Your task to perform on an android device: Open Reddit.com Image 0: 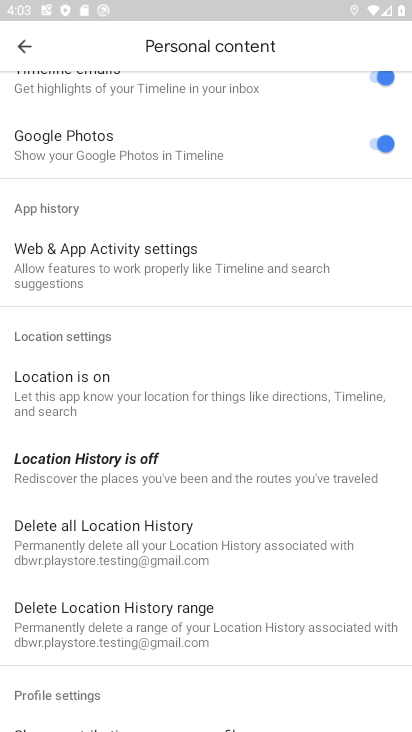
Step 0: press home button
Your task to perform on an android device: Open Reddit.com Image 1: 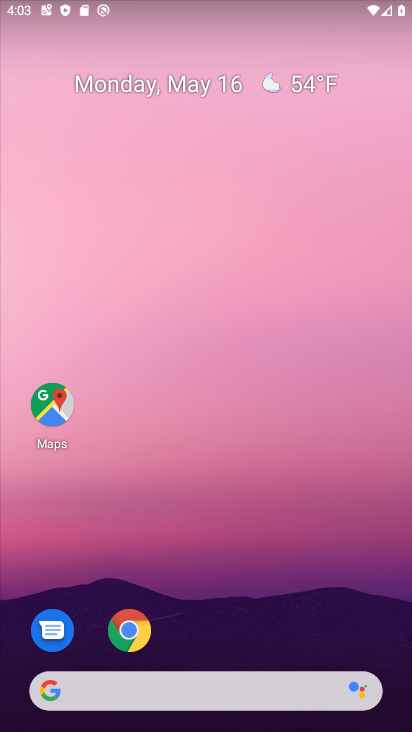
Step 1: click (127, 629)
Your task to perform on an android device: Open Reddit.com Image 2: 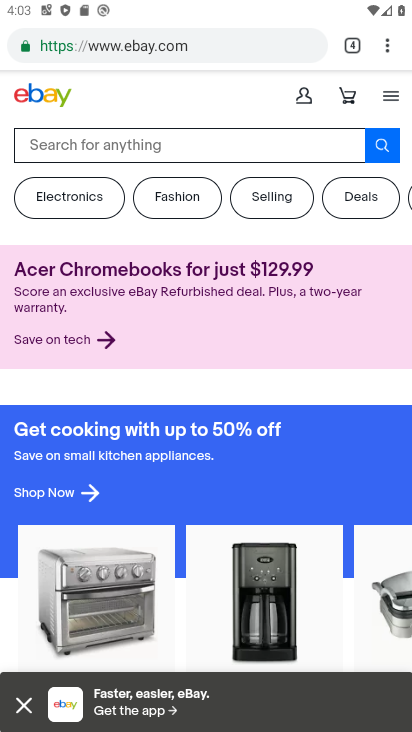
Step 2: click (175, 40)
Your task to perform on an android device: Open Reddit.com Image 3: 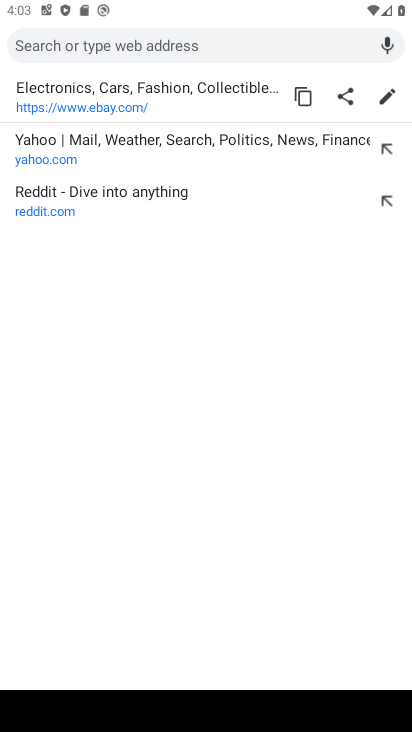
Step 3: click (153, 213)
Your task to perform on an android device: Open Reddit.com Image 4: 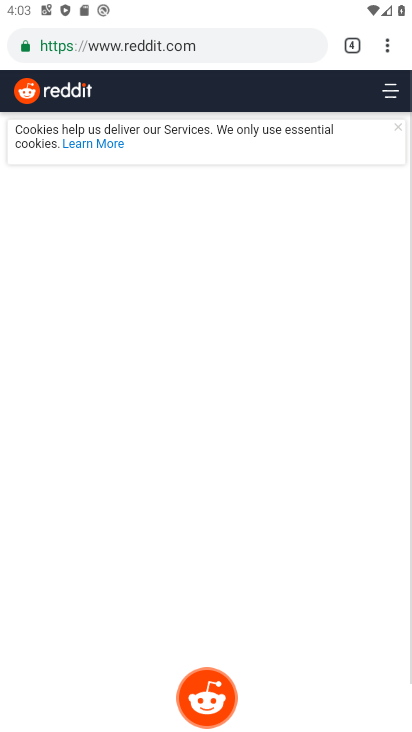
Step 4: task complete